Your task to perform on an android device: turn on the 24-hour format for clock Image 0: 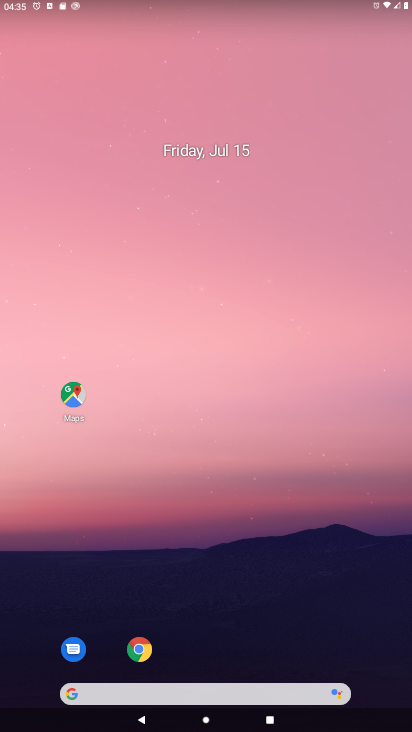
Step 0: drag from (382, 685) to (361, 64)
Your task to perform on an android device: turn on the 24-hour format for clock Image 1: 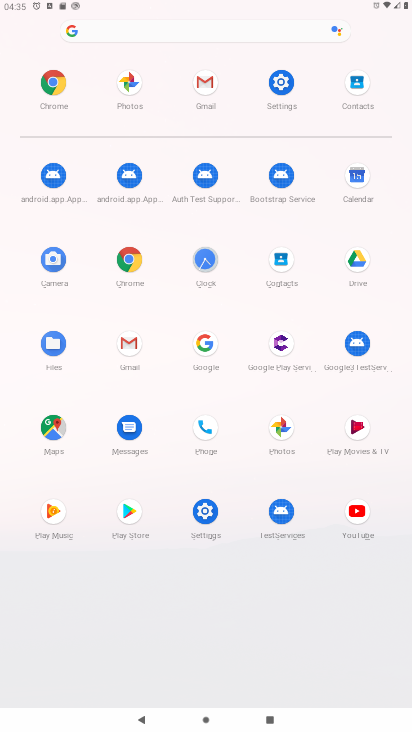
Step 1: click (205, 260)
Your task to perform on an android device: turn on the 24-hour format for clock Image 2: 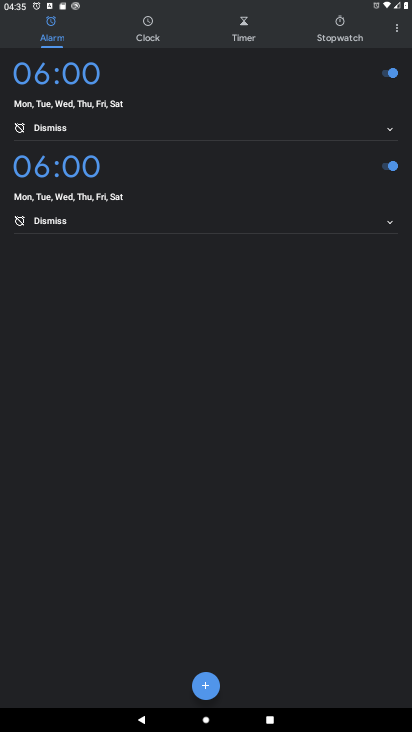
Step 2: click (394, 32)
Your task to perform on an android device: turn on the 24-hour format for clock Image 3: 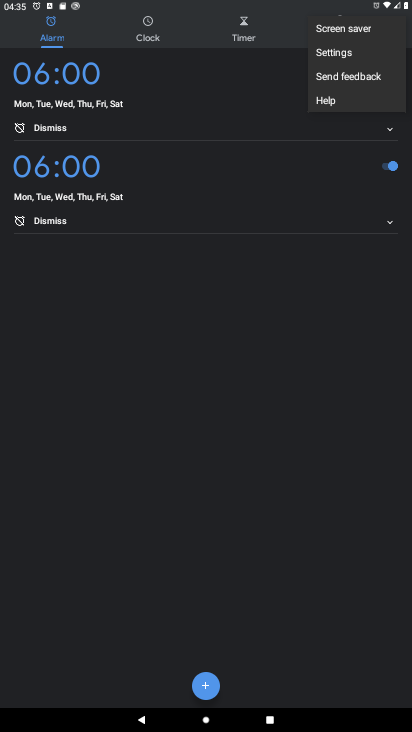
Step 3: click (334, 47)
Your task to perform on an android device: turn on the 24-hour format for clock Image 4: 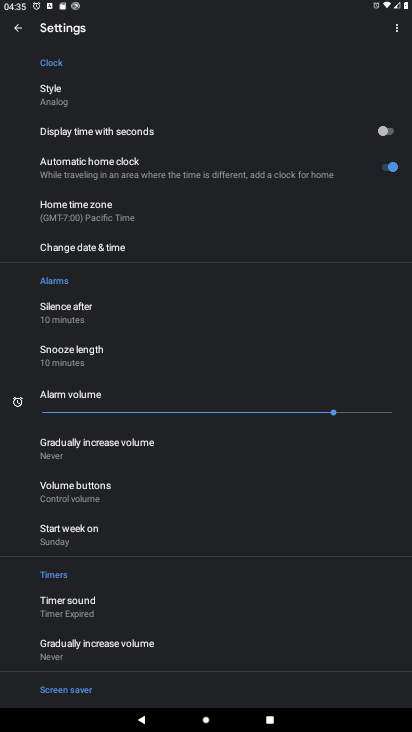
Step 4: click (96, 243)
Your task to perform on an android device: turn on the 24-hour format for clock Image 5: 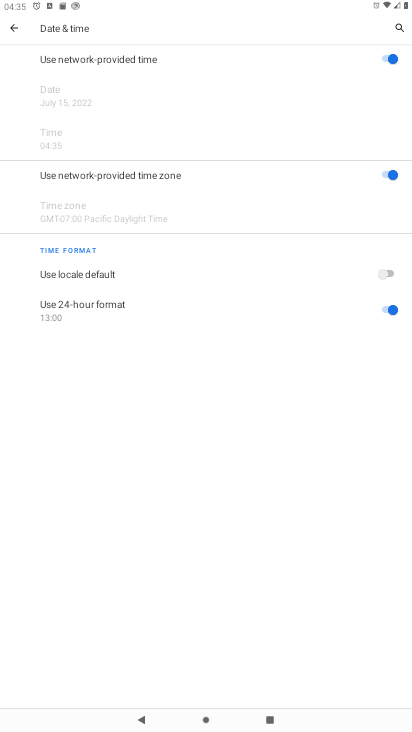
Step 5: task complete